Your task to perform on an android device: open app "DoorDash - Dasher" Image 0: 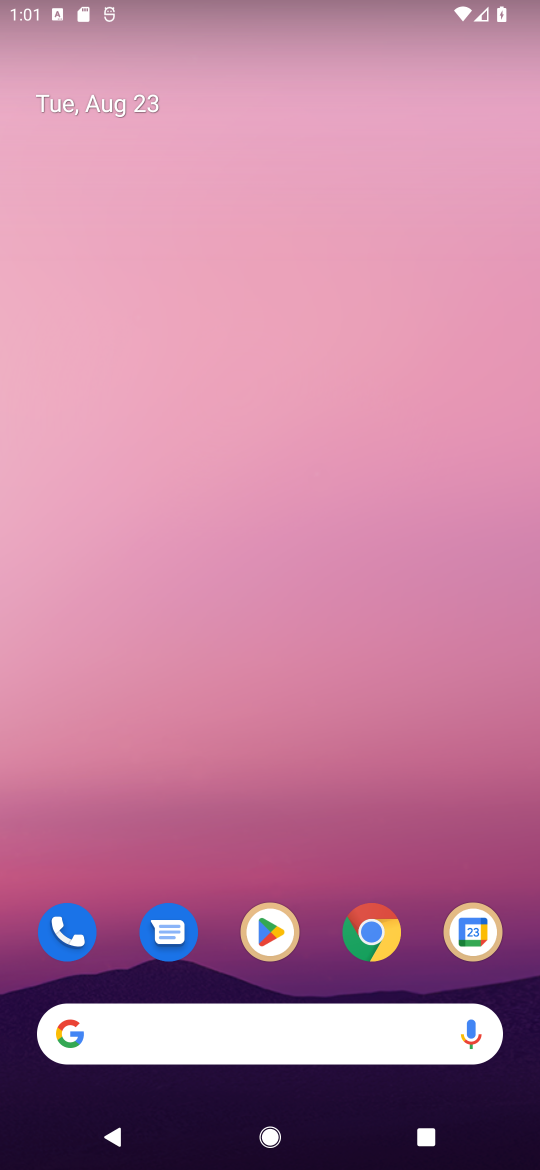
Step 0: click (258, 929)
Your task to perform on an android device: open app "DoorDash - Dasher" Image 1: 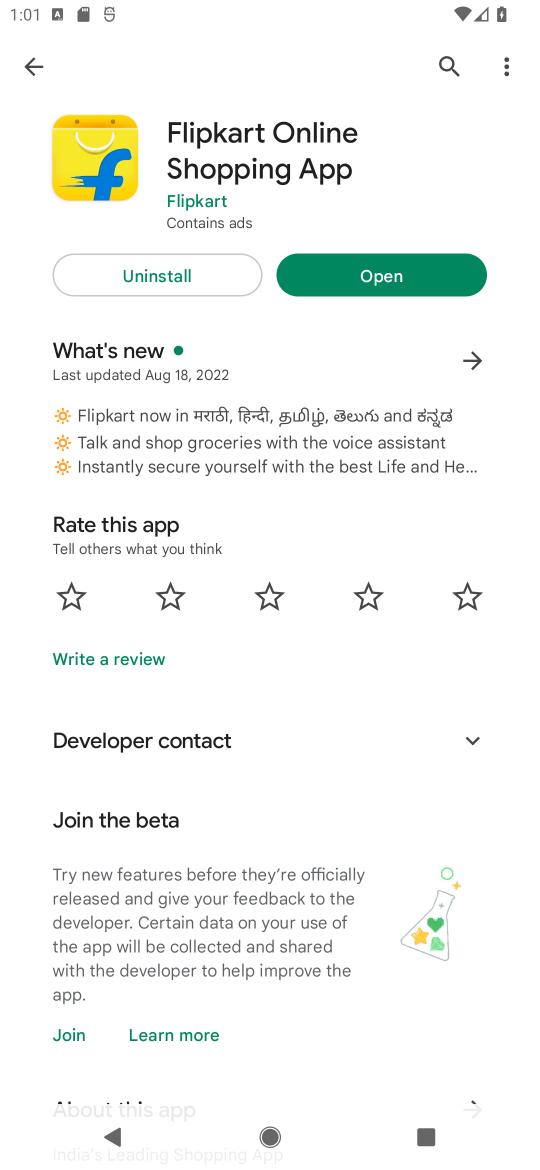
Step 1: click (447, 74)
Your task to perform on an android device: open app "DoorDash - Dasher" Image 2: 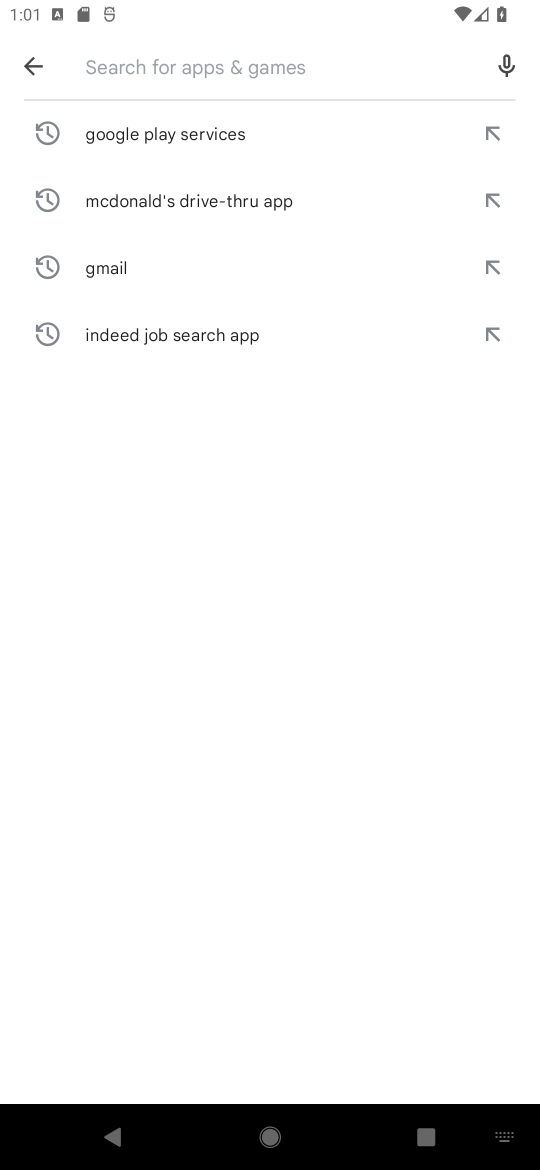
Step 2: click (117, 67)
Your task to perform on an android device: open app "DoorDash - Dasher" Image 3: 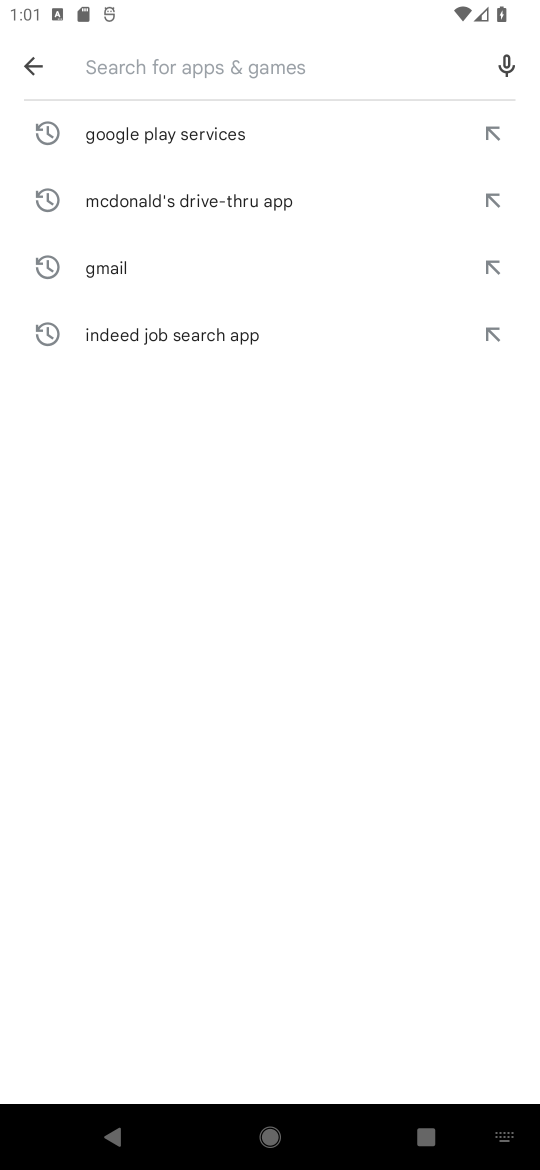
Step 3: type "DoorDash - Dasher"
Your task to perform on an android device: open app "DoorDash - Dasher" Image 4: 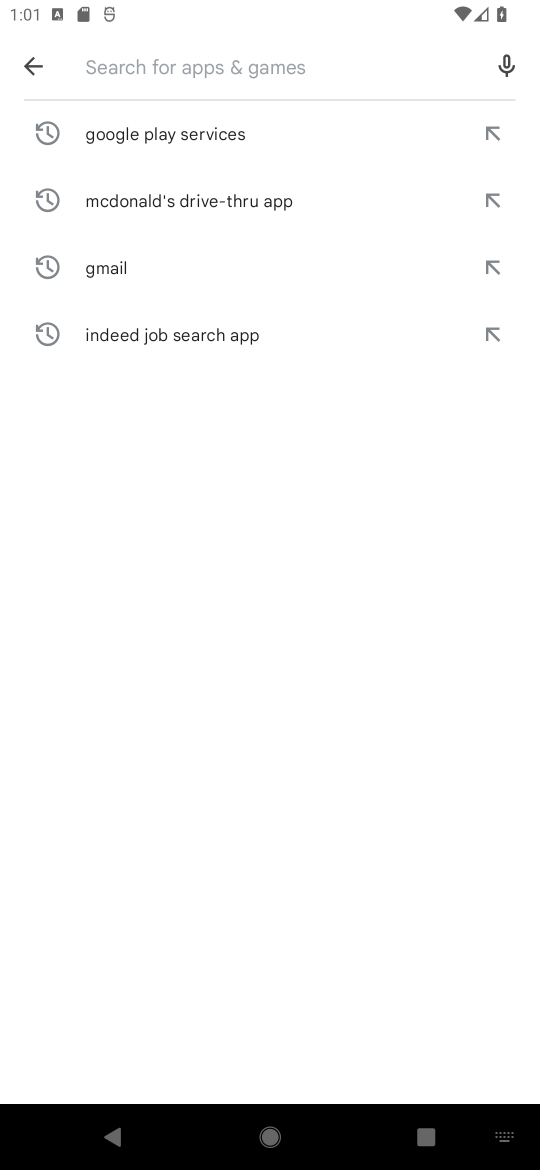
Step 4: click (357, 670)
Your task to perform on an android device: open app "DoorDash - Dasher" Image 5: 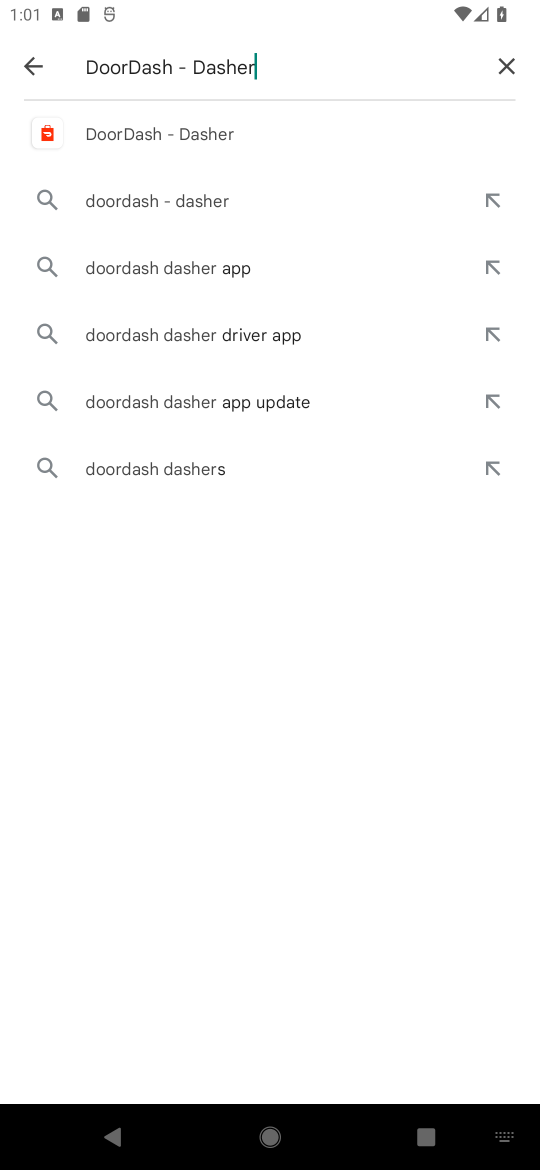
Step 5: click (179, 139)
Your task to perform on an android device: open app "DoorDash - Dasher" Image 6: 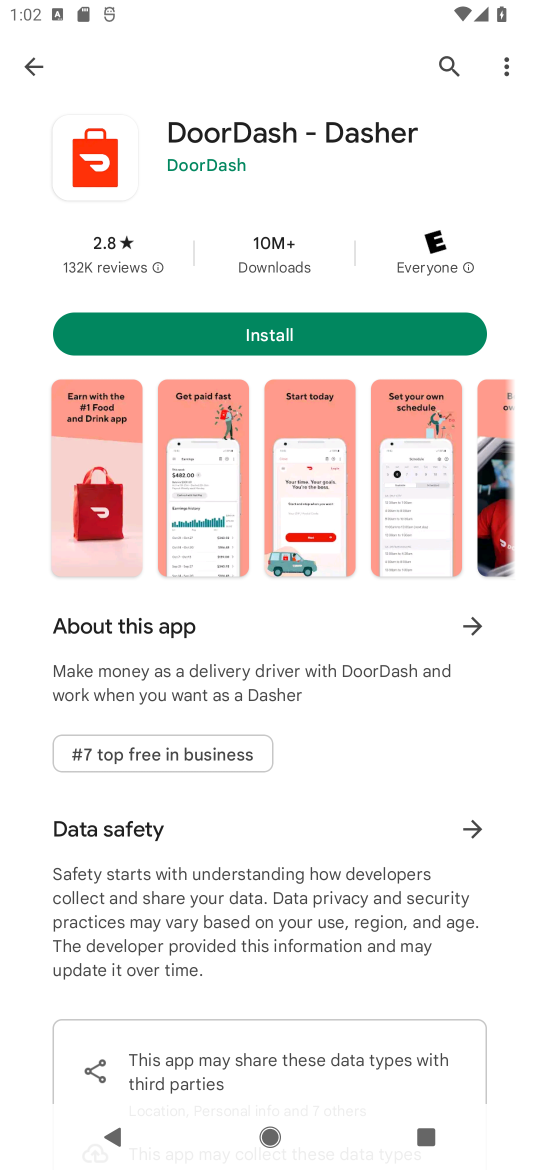
Step 6: task complete